Your task to perform on an android device: Open the phone app and click the voicemail tab. Image 0: 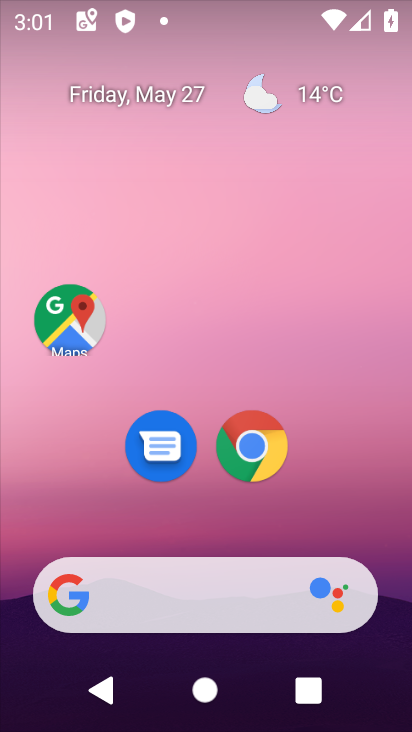
Step 0: press home button
Your task to perform on an android device: Open the phone app and click the voicemail tab. Image 1: 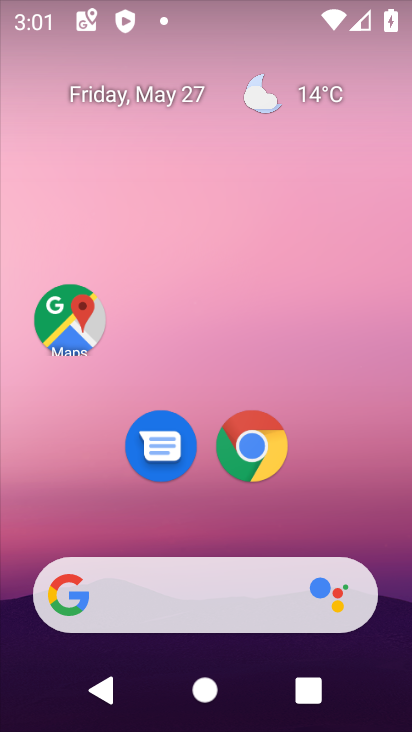
Step 1: drag from (208, 607) to (318, 89)
Your task to perform on an android device: Open the phone app and click the voicemail tab. Image 2: 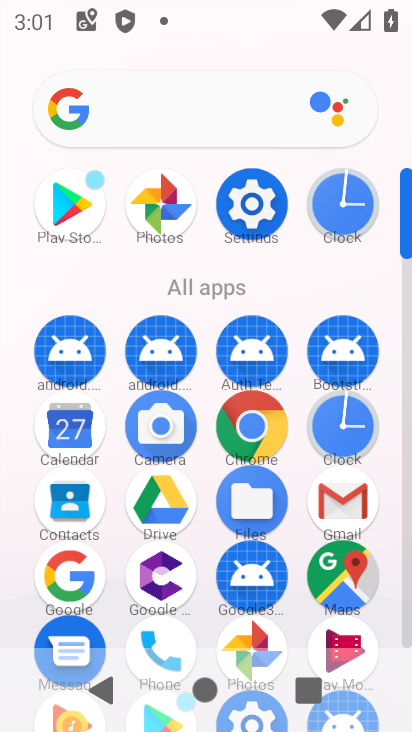
Step 2: drag from (201, 524) to (316, 152)
Your task to perform on an android device: Open the phone app and click the voicemail tab. Image 3: 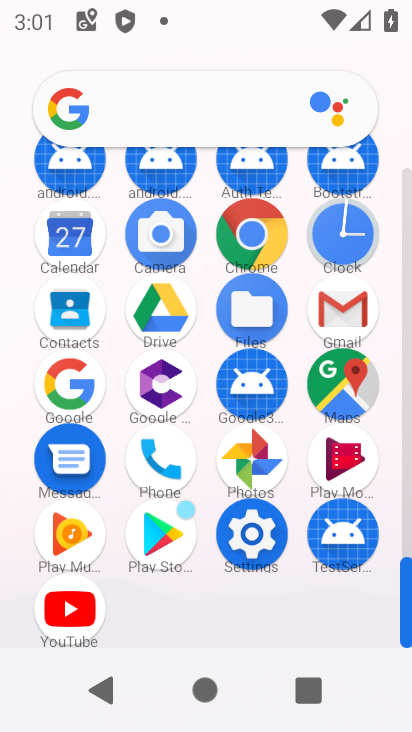
Step 3: click (157, 461)
Your task to perform on an android device: Open the phone app and click the voicemail tab. Image 4: 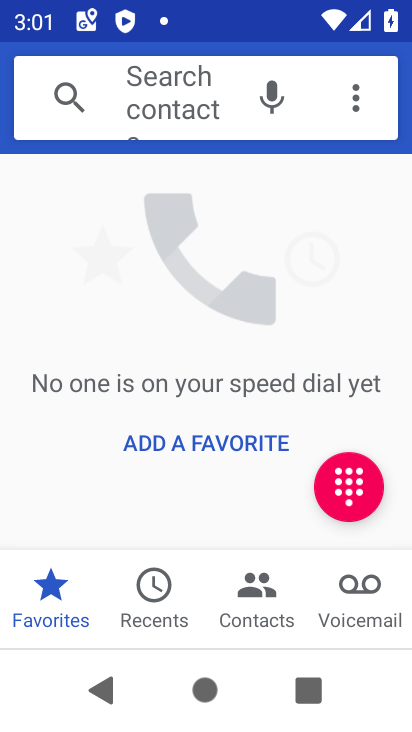
Step 4: click (363, 604)
Your task to perform on an android device: Open the phone app and click the voicemail tab. Image 5: 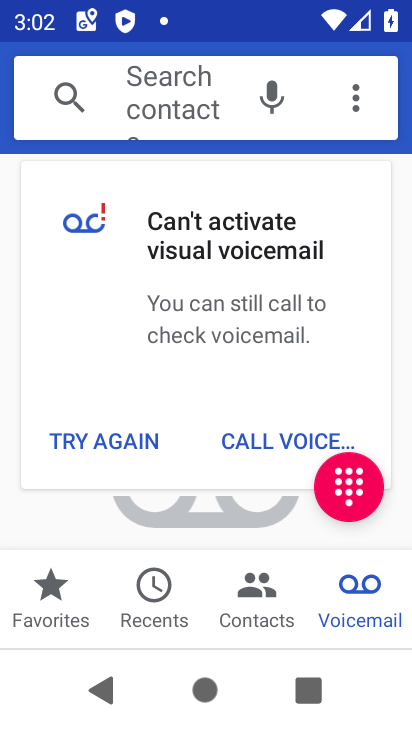
Step 5: task complete